Your task to perform on an android device: turn off notifications in google photos Image 0: 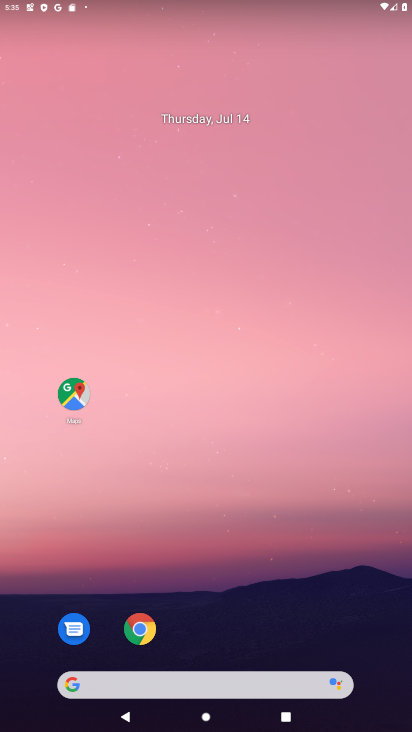
Step 0: press home button
Your task to perform on an android device: turn off notifications in google photos Image 1: 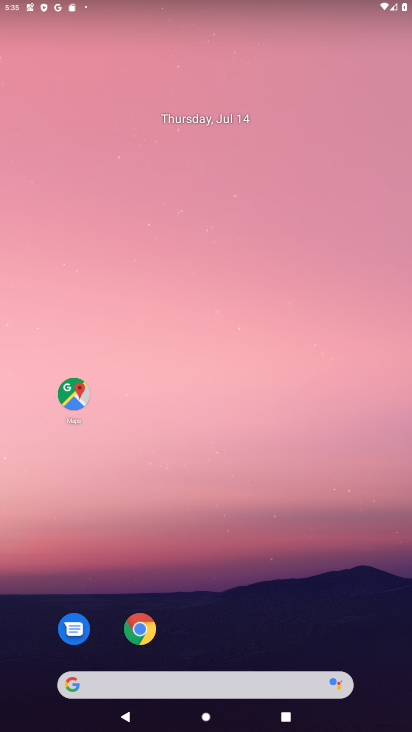
Step 1: drag from (110, 670) to (228, 11)
Your task to perform on an android device: turn off notifications in google photos Image 2: 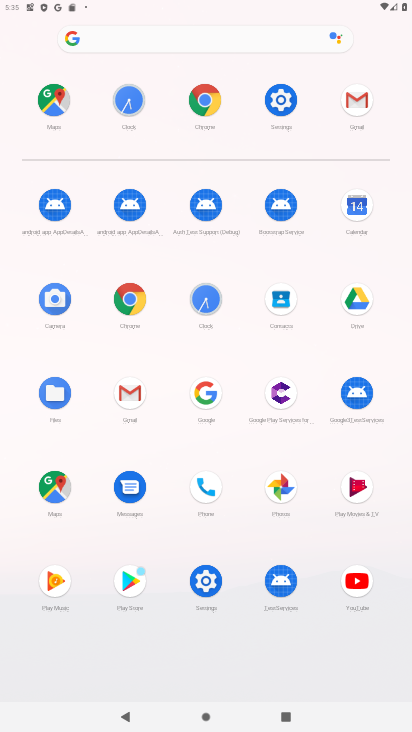
Step 2: click (268, 484)
Your task to perform on an android device: turn off notifications in google photos Image 3: 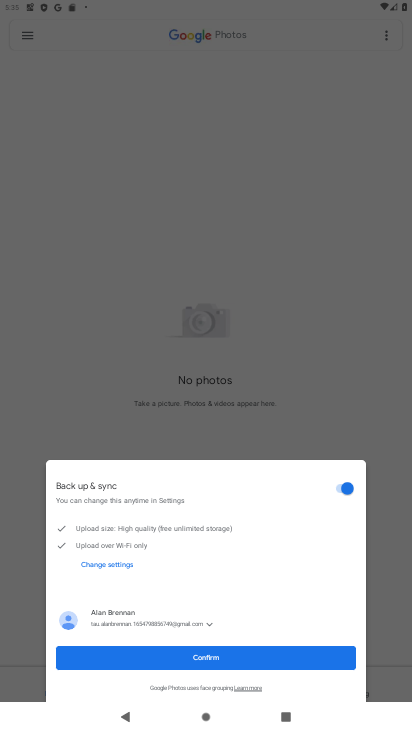
Step 3: click (231, 661)
Your task to perform on an android device: turn off notifications in google photos Image 4: 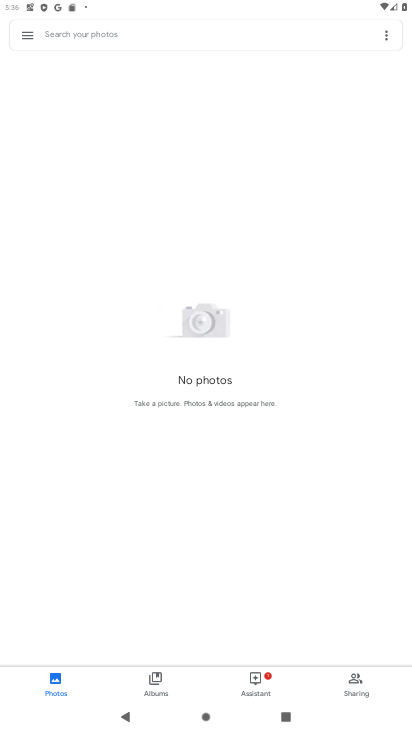
Step 4: click (19, 27)
Your task to perform on an android device: turn off notifications in google photos Image 5: 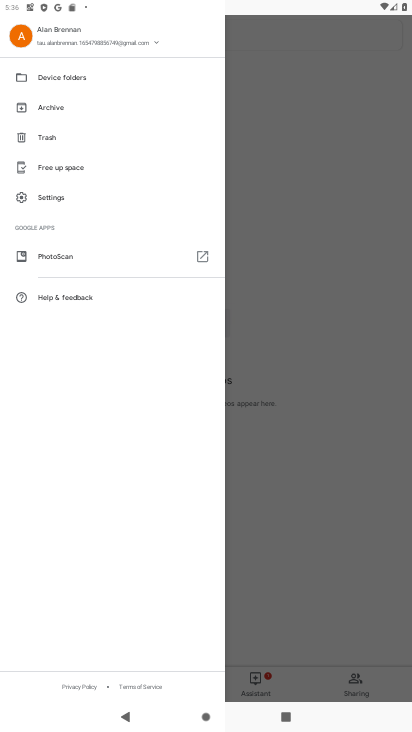
Step 5: click (62, 205)
Your task to perform on an android device: turn off notifications in google photos Image 6: 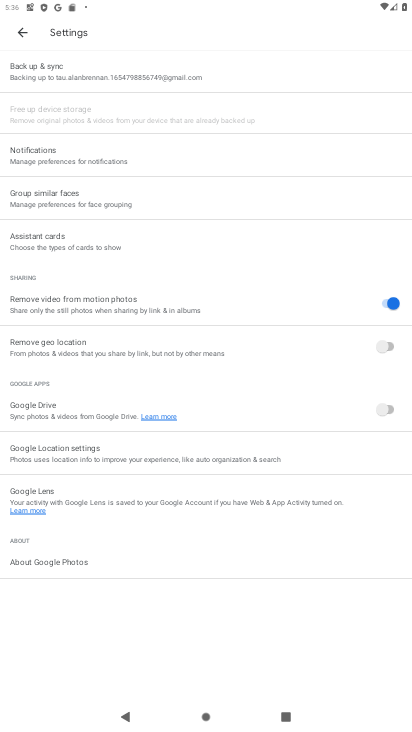
Step 6: click (108, 153)
Your task to perform on an android device: turn off notifications in google photos Image 7: 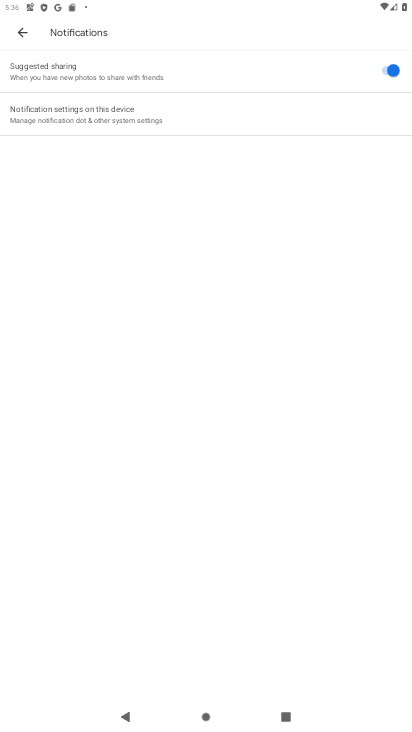
Step 7: click (117, 126)
Your task to perform on an android device: turn off notifications in google photos Image 8: 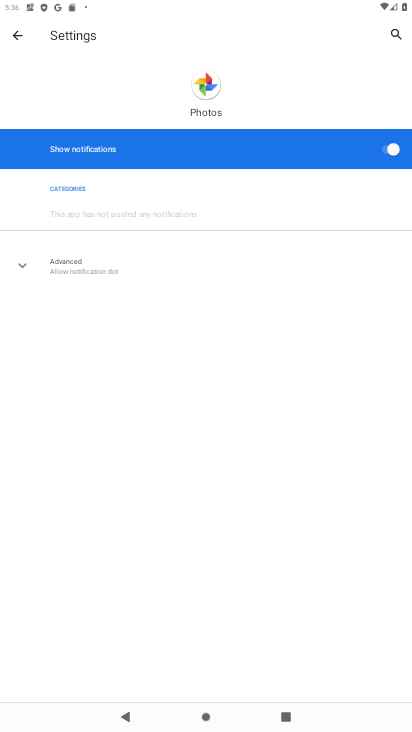
Step 8: click (391, 154)
Your task to perform on an android device: turn off notifications in google photos Image 9: 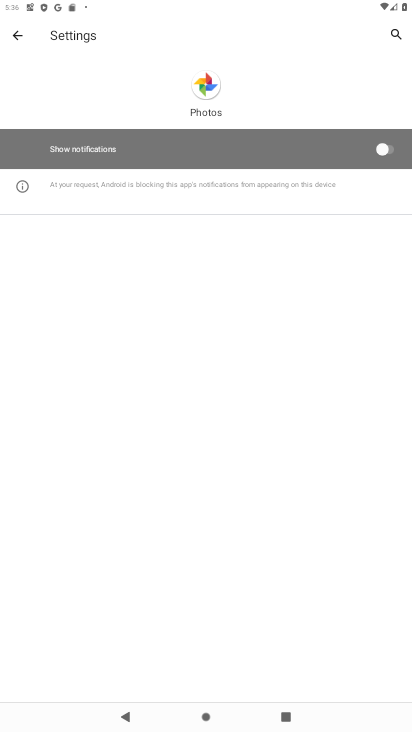
Step 9: task complete